Your task to perform on an android device: Open Youtube and go to "Your channel" Image 0: 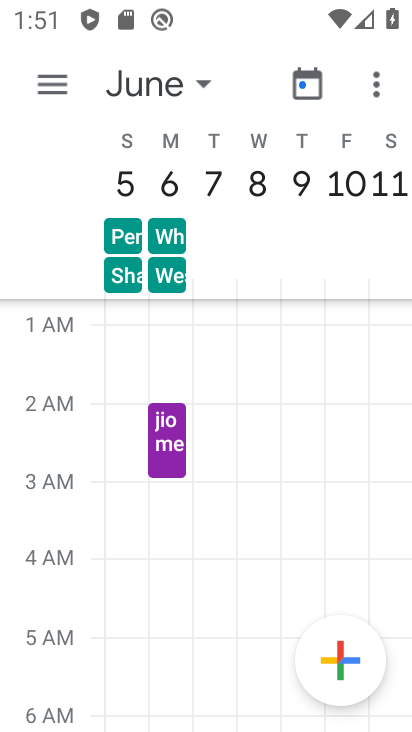
Step 0: press home button
Your task to perform on an android device: Open Youtube and go to "Your channel" Image 1: 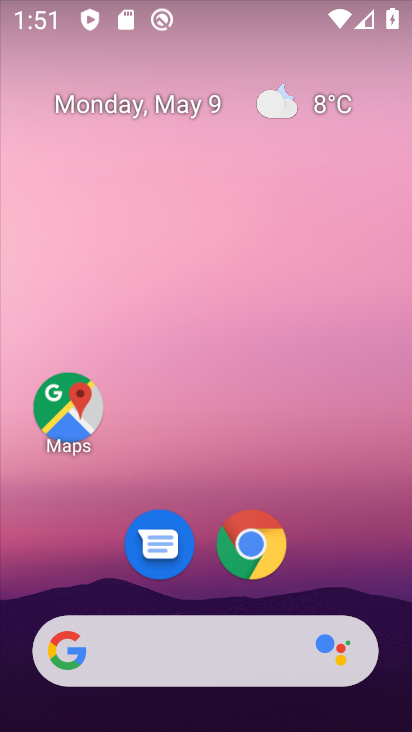
Step 1: drag from (155, 616) to (308, 28)
Your task to perform on an android device: Open Youtube and go to "Your channel" Image 2: 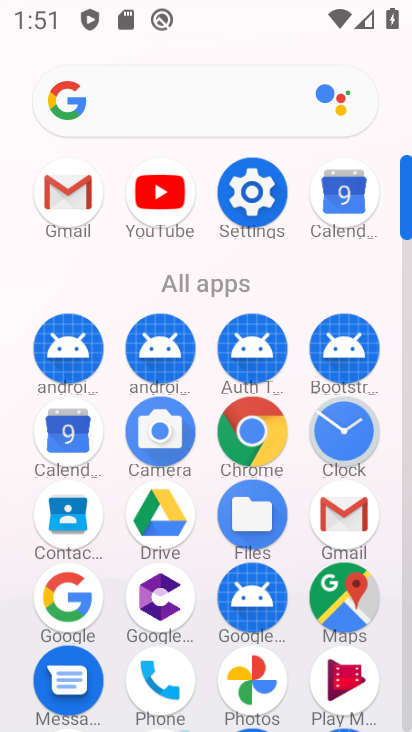
Step 2: click (163, 212)
Your task to perform on an android device: Open Youtube and go to "Your channel" Image 3: 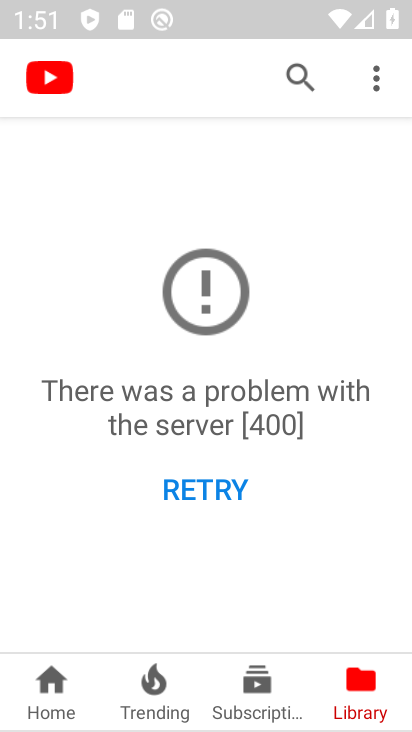
Step 3: click (391, 706)
Your task to perform on an android device: Open Youtube and go to "Your channel" Image 4: 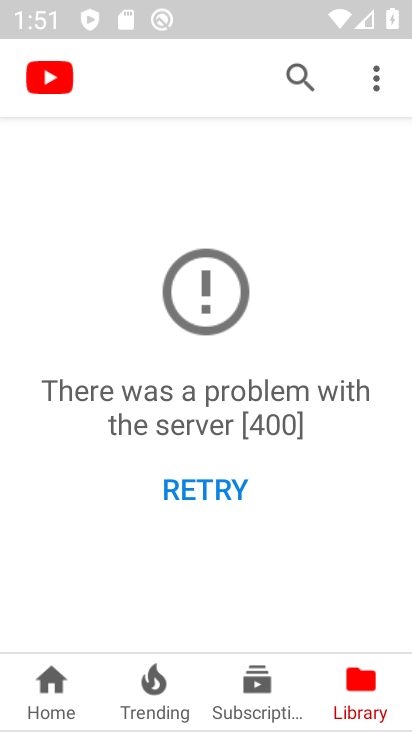
Step 4: task complete